Your task to perform on an android device: turn on sleep mode Image 0: 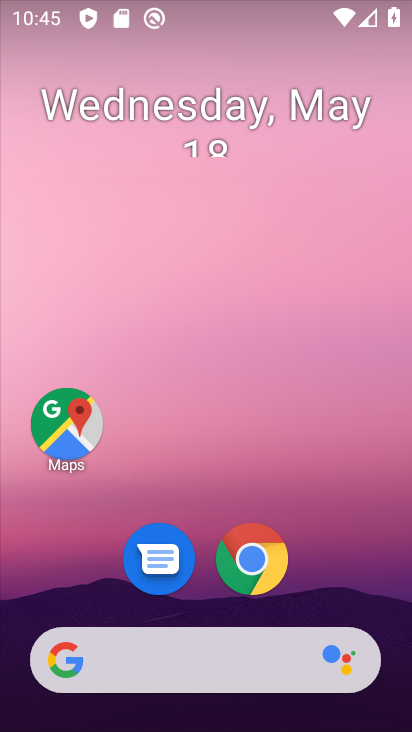
Step 0: drag from (317, 605) to (288, 96)
Your task to perform on an android device: turn on sleep mode Image 1: 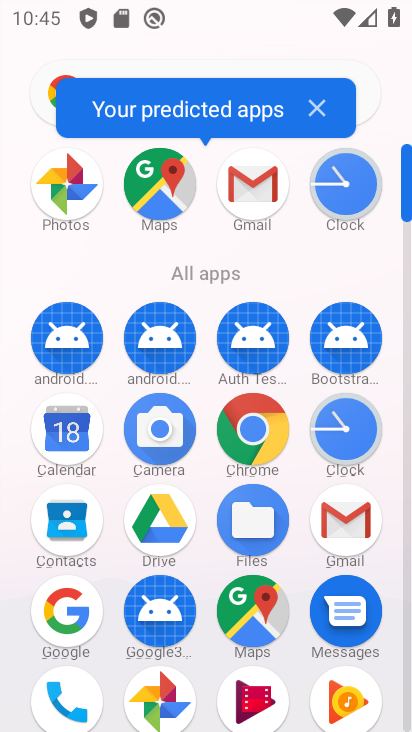
Step 1: drag from (176, 538) to (190, 171)
Your task to perform on an android device: turn on sleep mode Image 2: 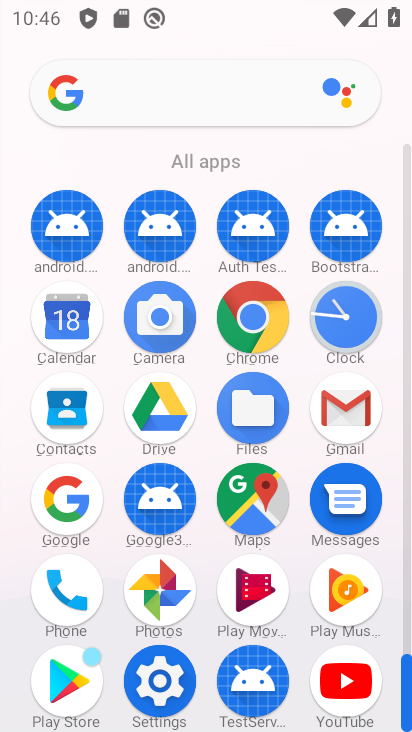
Step 2: click (147, 685)
Your task to perform on an android device: turn on sleep mode Image 3: 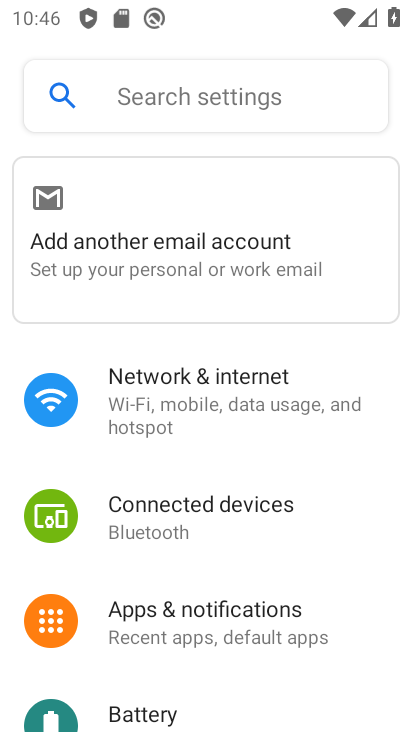
Step 3: drag from (230, 596) to (215, 122)
Your task to perform on an android device: turn on sleep mode Image 4: 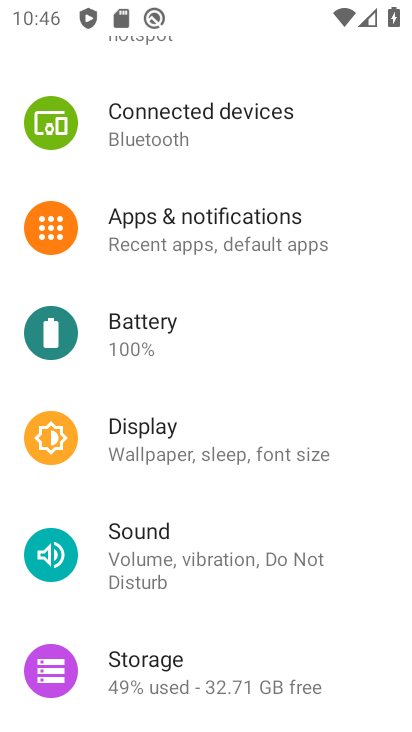
Step 4: click (229, 441)
Your task to perform on an android device: turn on sleep mode Image 5: 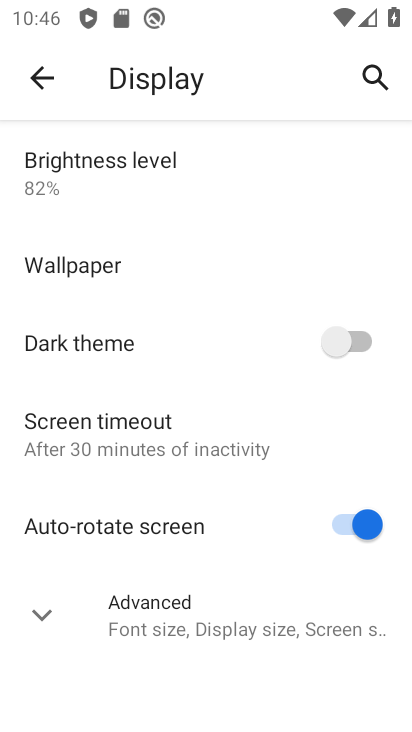
Step 5: click (229, 441)
Your task to perform on an android device: turn on sleep mode Image 6: 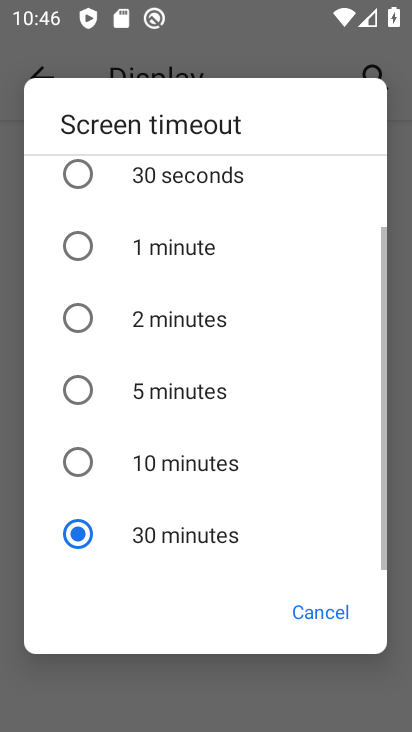
Step 6: task complete